Your task to perform on an android device: change the clock display to digital Image 0: 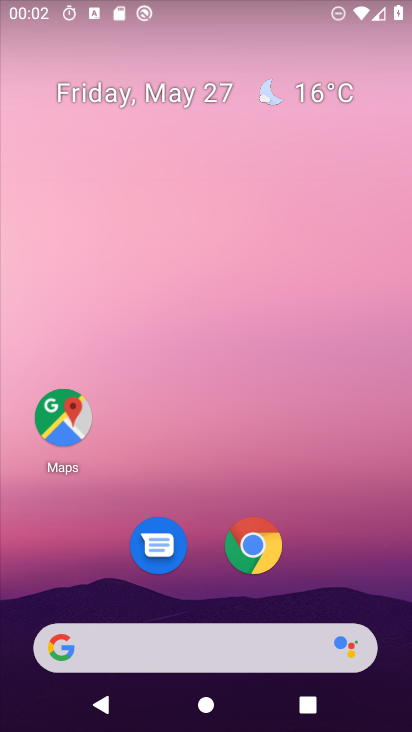
Step 0: press home button
Your task to perform on an android device: change the clock display to digital Image 1: 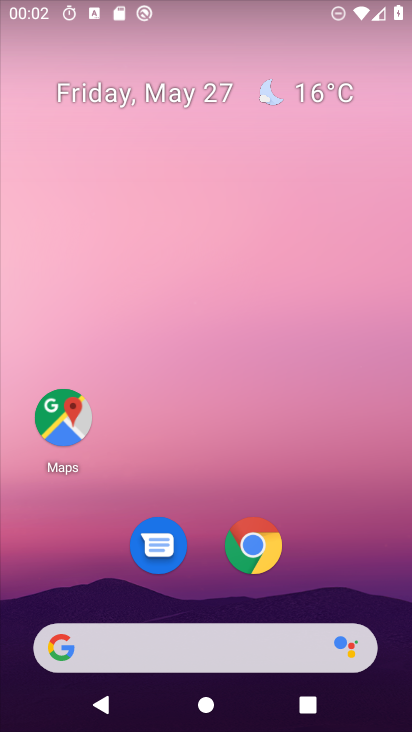
Step 1: drag from (324, 602) to (263, 227)
Your task to perform on an android device: change the clock display to digital Image 2: 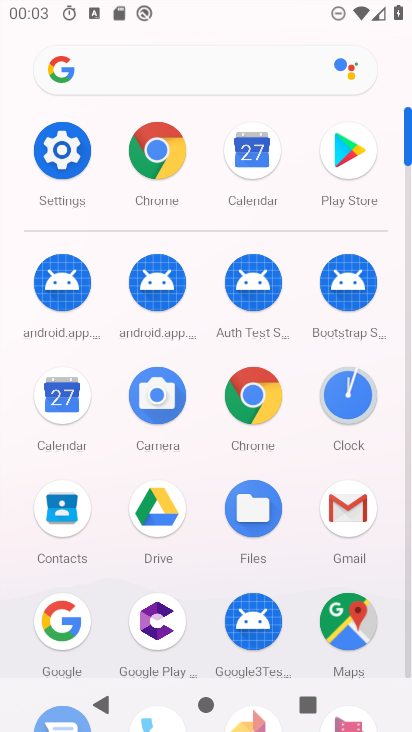
Step 2: click (351, 403)
Your task to perform on an android device: change the clock display to digital Image 3: 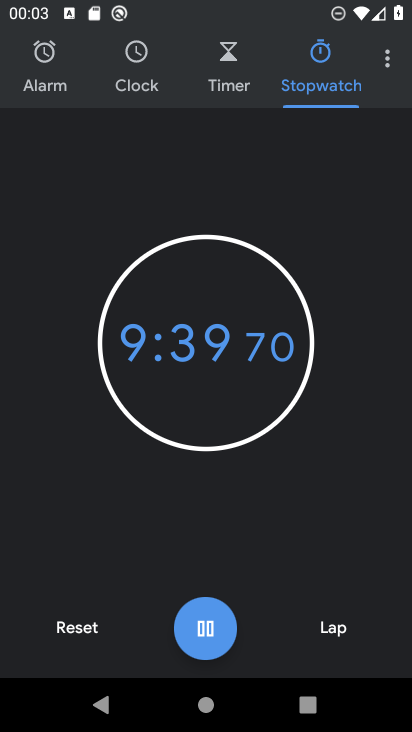
Step 3: click (391, 71)
Your task to perform on an android device: change the clock display to digital Image 4: 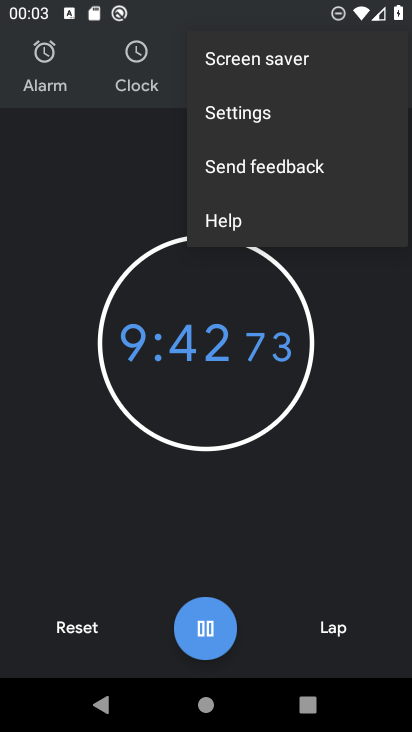
Step 4: click (249, 117)
Your task to perform on an android device: change the clock display to digital Image 5: 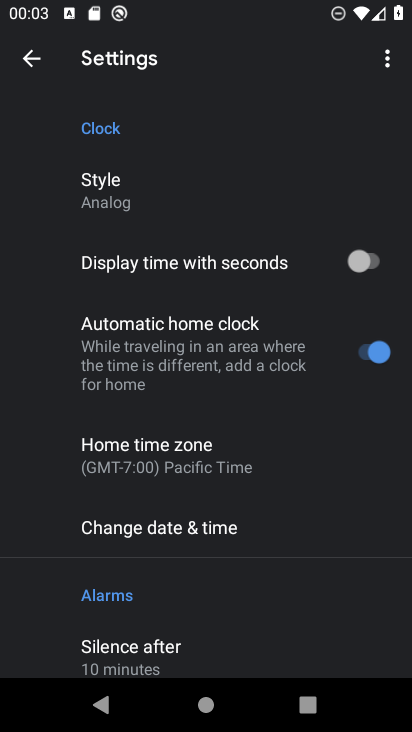
Step 5: click (99, 185)
Your task to perform on an android device: change the clock display to digital Image 6: 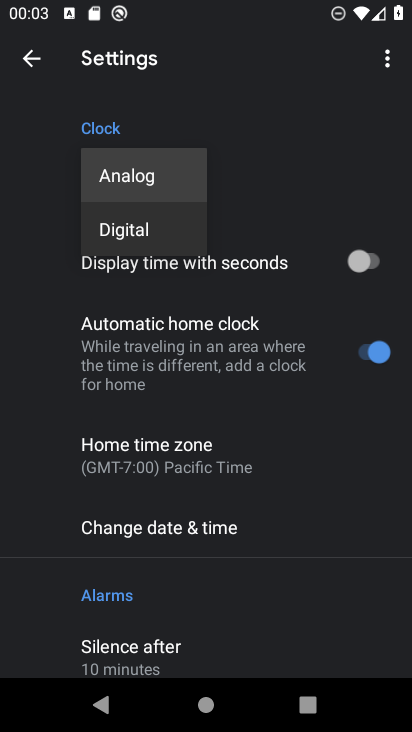
Step 6: click (122, 234)
Your task to perform on an android device: change the clock display to digital Image 7: 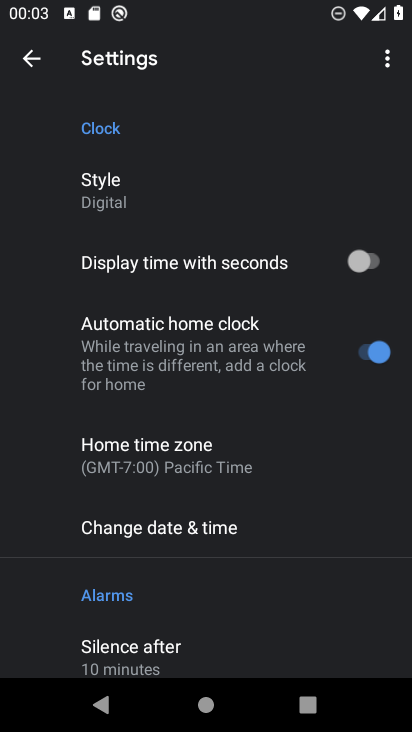
Step 7: task complete